Your task to perform on an android device: turn on airplane mode Image 0: 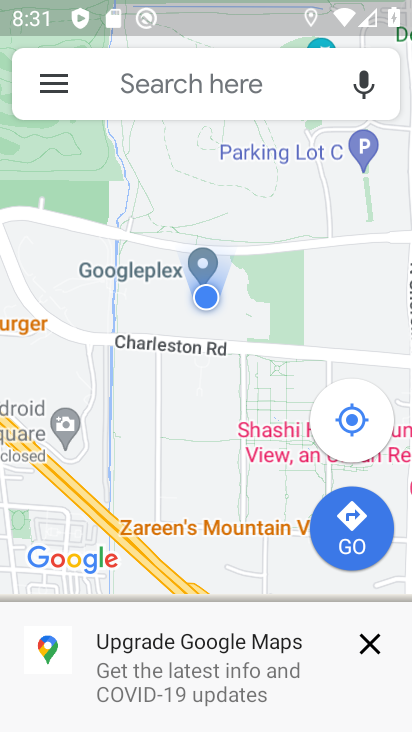
Step 0: press back button
Your task to perform on an android device: turn on airplane mode Image 1: 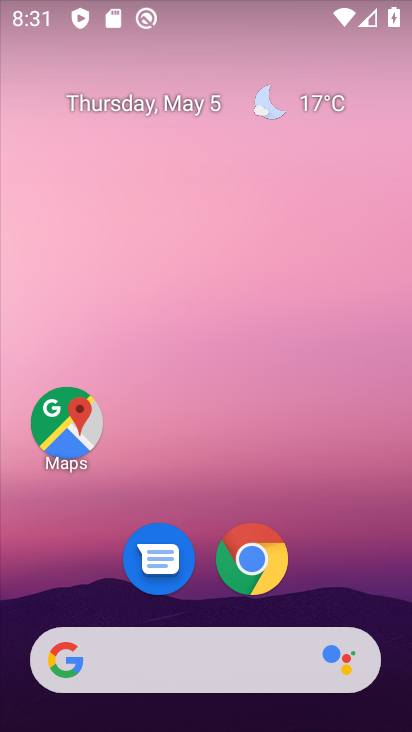
Step 1: drag from (130, 12) to (183, 584)
Your task to perform on an android device: turn on airplane mode Image 2: 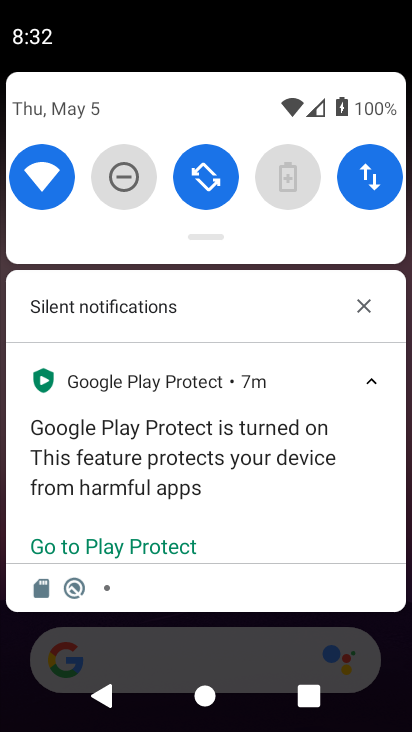
Step 2: drag from (191, 234) to (216, 618)
Your task to perform on an android device: turn on airplane mode Image 3: 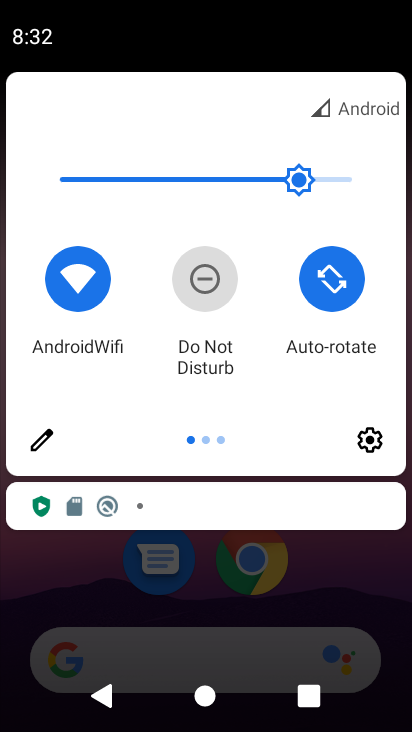
Step 3: drag from (338, 310) to (3, 260)
Your task to perform on an android device: turn on airplane mode Image 4: 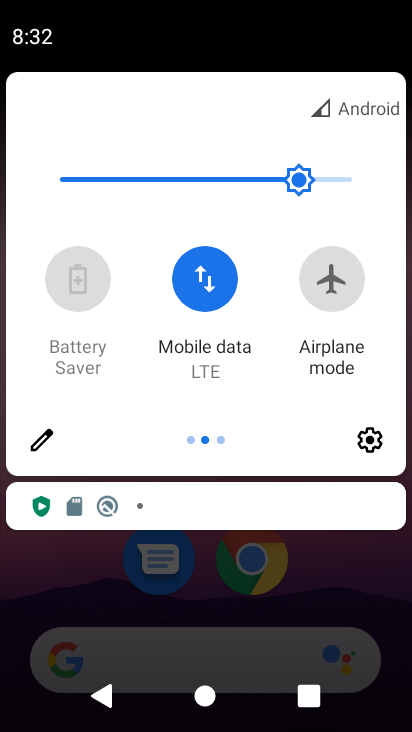
Step 4: click (331, 278)
Your task to perform on an android device: turn on airplane mode Image 5: 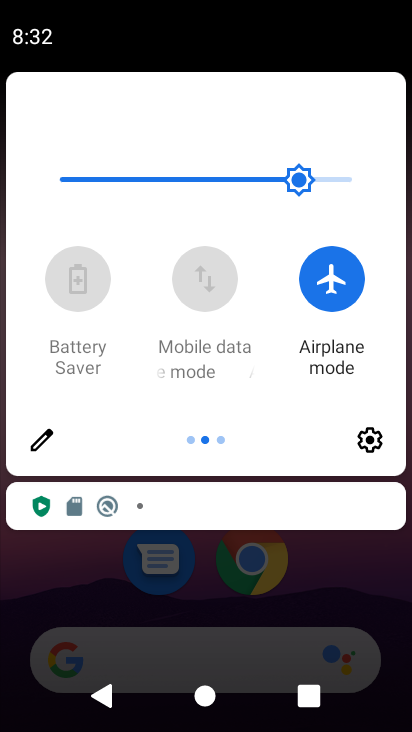
Step 5: task complete